Your task to perform on an android device: visit the assistant section in the google photos Image 0: 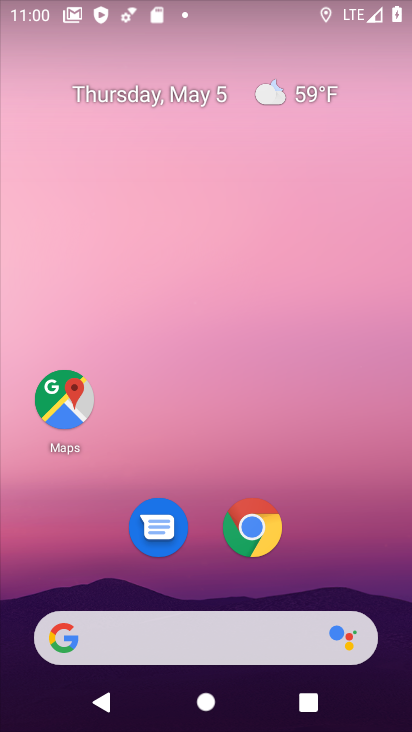
Step 0: drag from (206, 586) to (219, 2)
Your task to perform on an android device: visit the assistant section in the google photos Image 1: 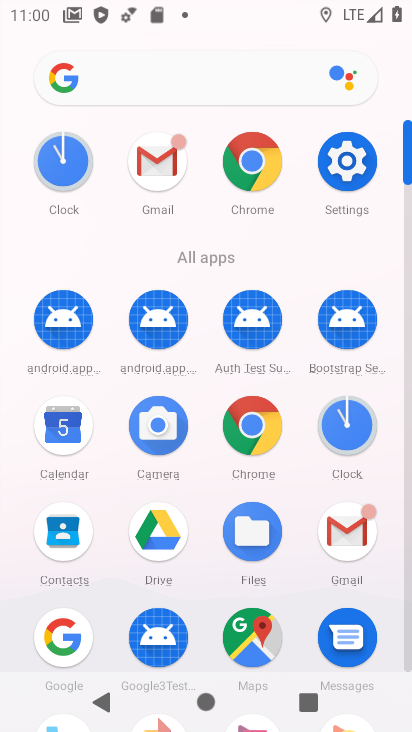
Step 1: drag from (255, 566) to (260, 224)
Your task to perform on an android device: visit the assistant section in the google photos Image 2: 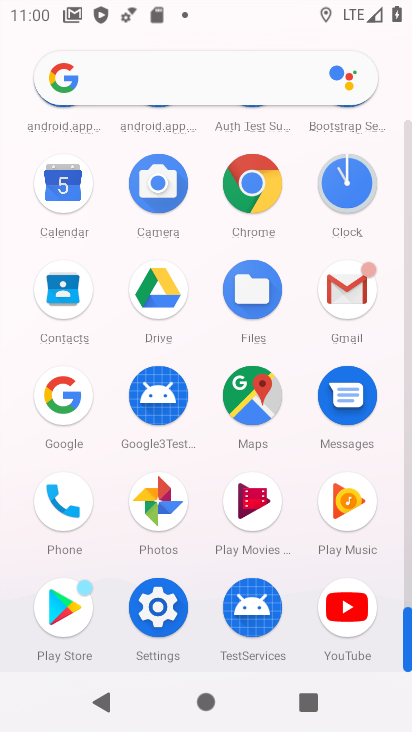
Step 2: click (173, 518)
Your task to perform on an android device: visit the assistant section in the google photos Image 3: 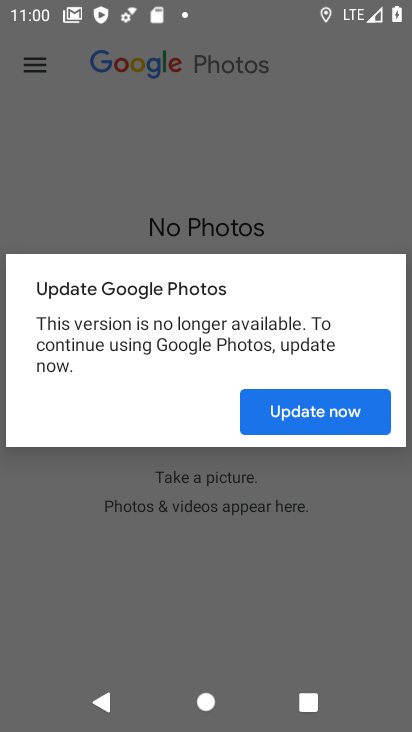
Step 3: click (314, 416)
Your task to perform on an android device: visit the assistant section in the google photos Image 4: 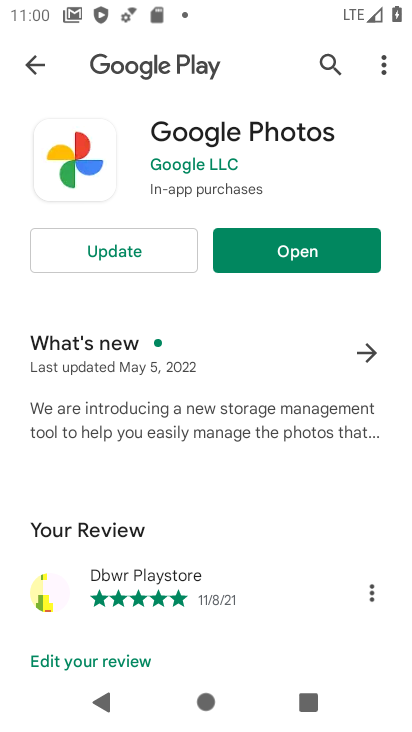
Step 4: click (240, 251)
Your task to perform on an android device: visit the assistant section in the google photos Image 5: 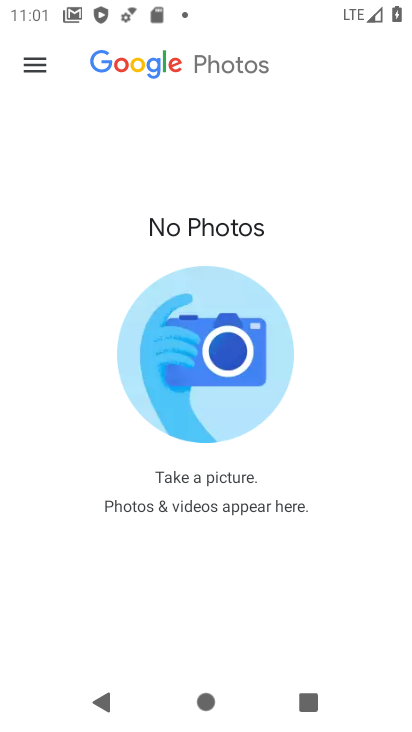
Step 5: click (40, 63)
Your task to perform on an android device: visit the assistant section in the google photos Image 6: 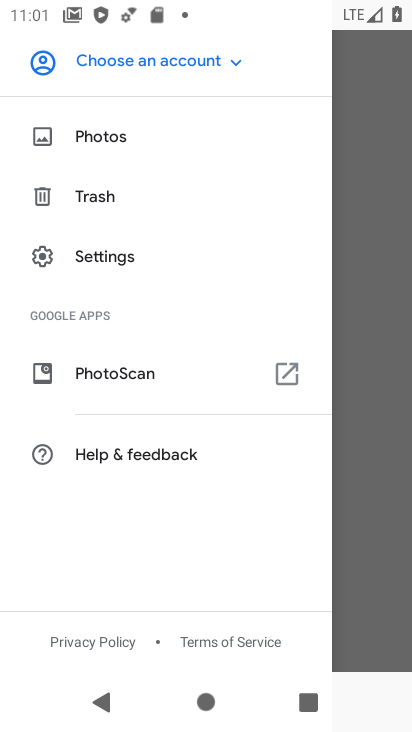
Step 6: click (380, 240)
Your task to perform on an android device: visit the assistant section in the google photos Image 7: 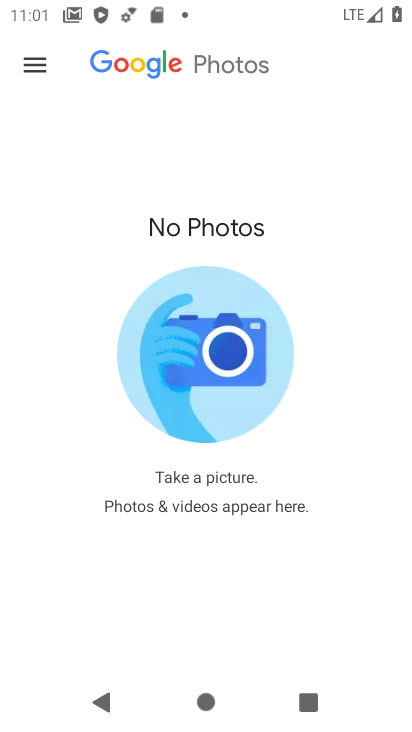
Step 7: task complete